Your task to perform on an android device: What's the weather today? Image 0: 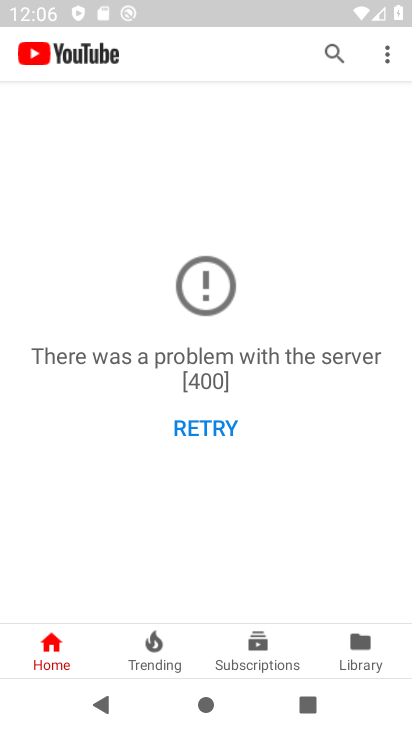
Step 0: press home button
Your task to perform on an android device: What's the weather today? Image 1: 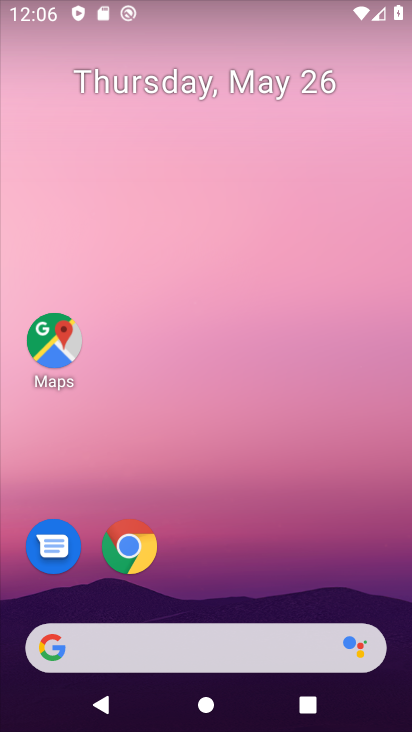
Step 1: drag from (390, 620) to (265, 86)
Your task to perform on an android device: What's the weather today? Image 2: 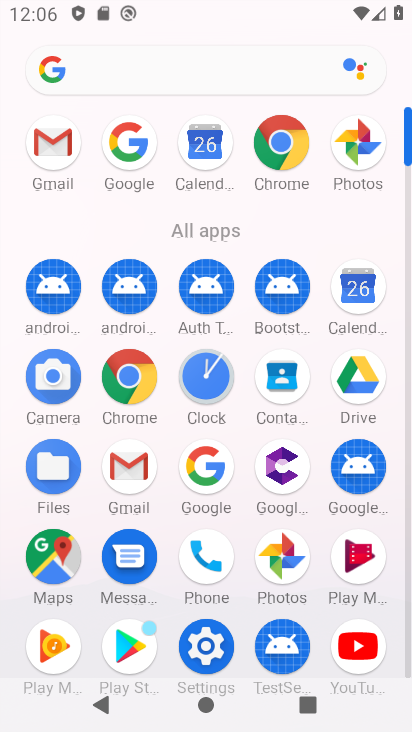
Step 2: click (229, 464)
Your task to perform on an android device: What's the weather today? Image 3: 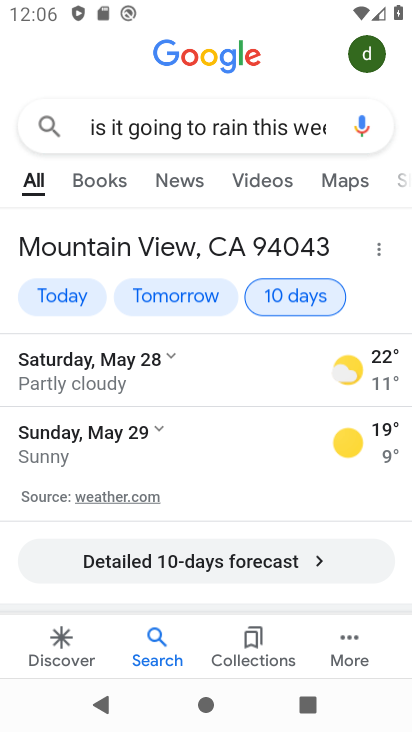
Step 3: press back button
Your task to perform on an android device: What's the weather today? Image 4: 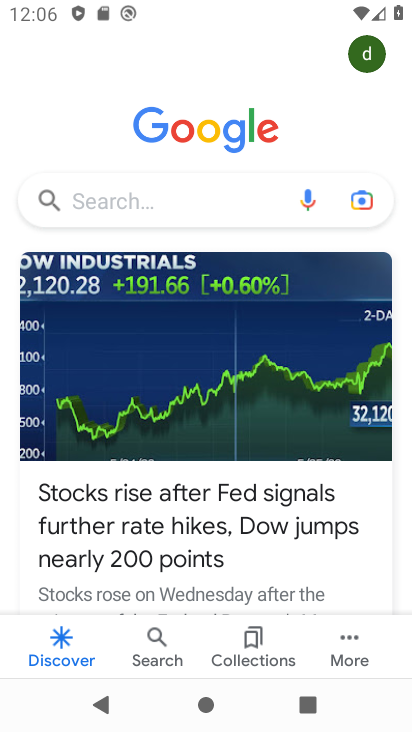
Step 4: click (139, 199)
Your task to perform on an android device: What's the weather today? Image 5: 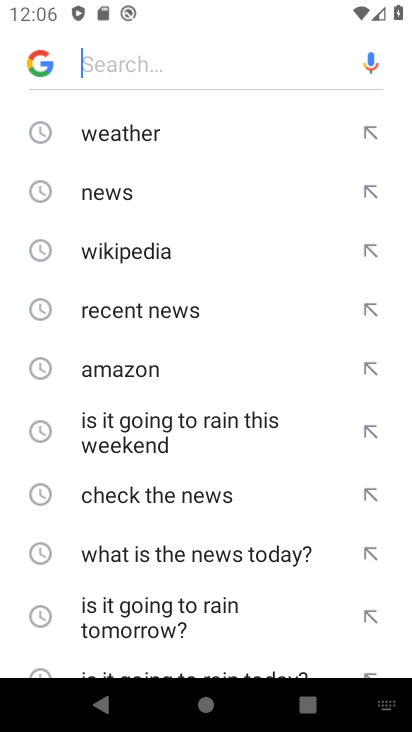
Step 5: drag from (211, 583) to (201, 246)
Your task to perform on an android device: What's the weather today? Image 6: 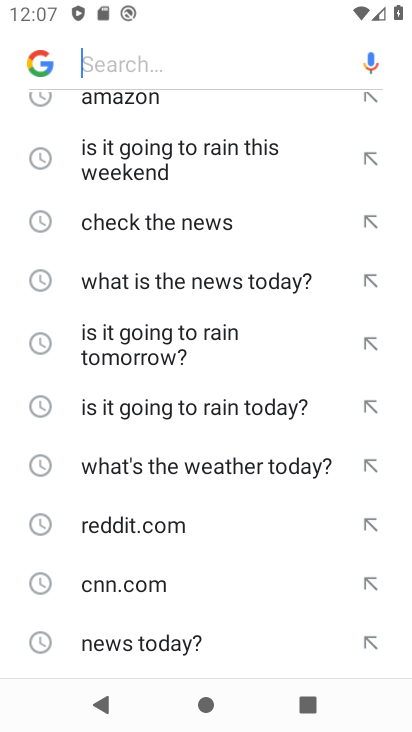
Step 6: click (201, 460)
Your task to perform on an android device: What's the weather today? Image 7: 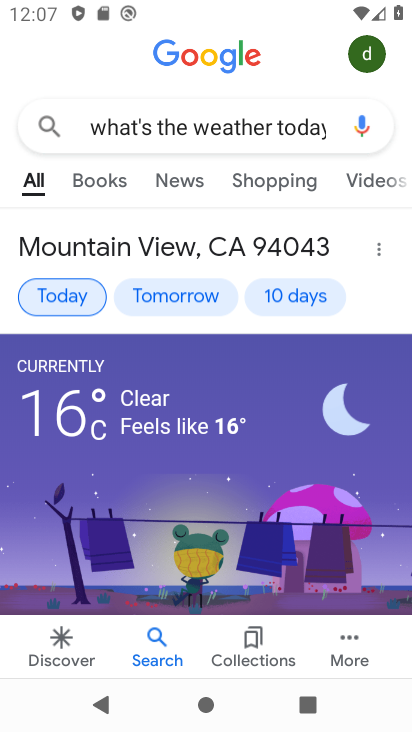
Step 7: task complete